Your task to perform on an android device: toggle pop-ups in chrome Image 0: 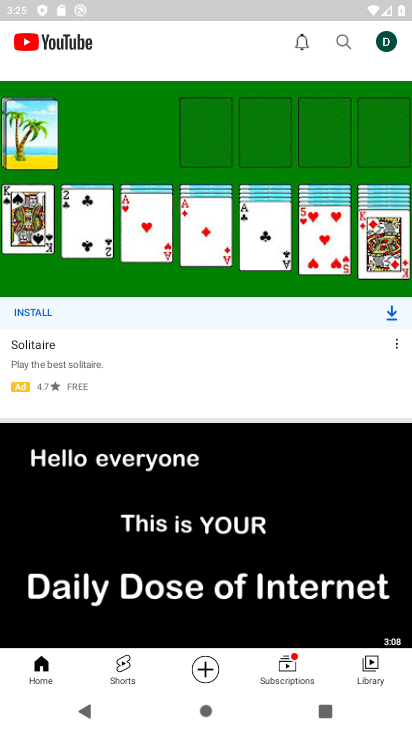
Step 0: press home button
Your task to perform on an android device: toggle pop-ups in chrome Image 1: 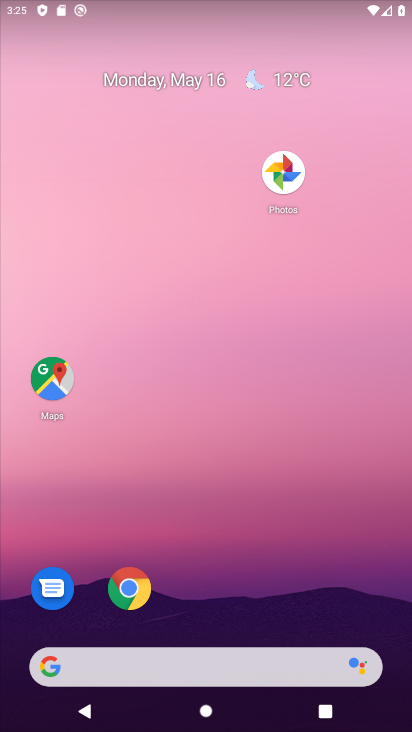
Step 1: click (136, 580)
Your task to perform on an android device: toggle pop-ups in chrome Image 2: 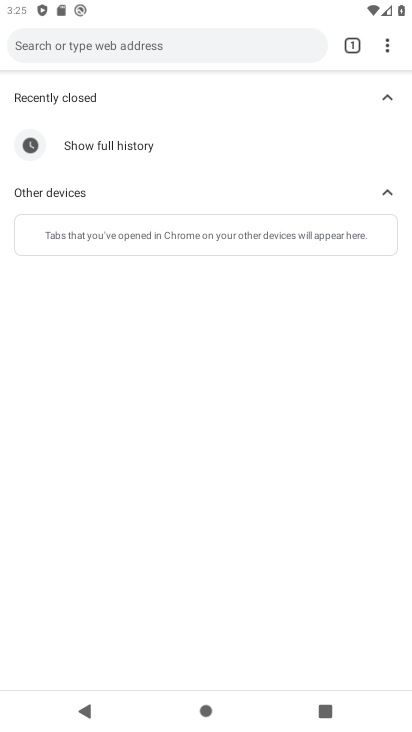
Step 2: click (397, 38)
Your task to perform on an android device: toggle pop-ups in chrome Image 3: 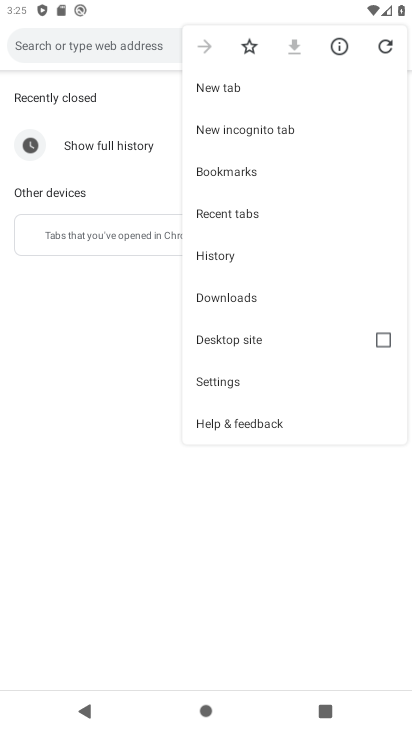
Step 3: click (222, 385)
Your task to perform on an android device: toggle pop-ups in chrome Image 4: 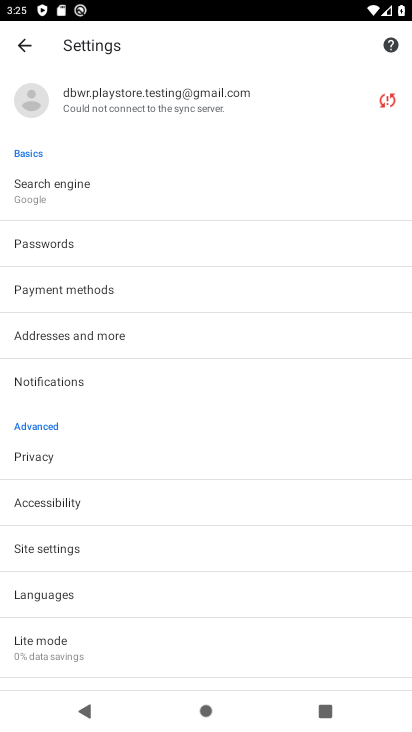
Step 4: drag from (71, 649) to (270, 130)
Your task to perform on an android device: toggle pop-ups in chrome Image 5: 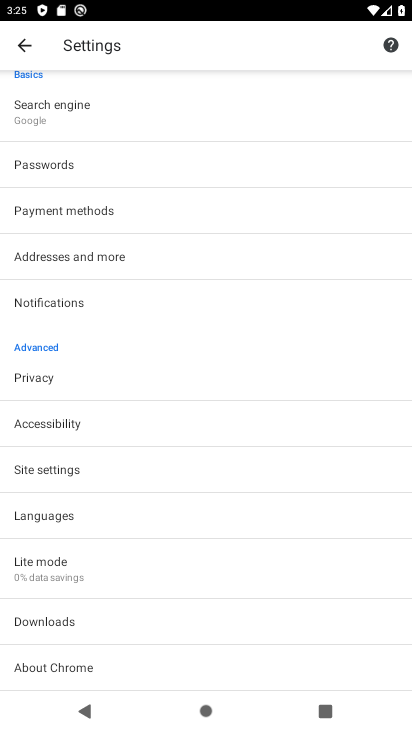
Step 5: drag from (189, 545) to (279, 88)
Your task to perform on an android device: toggle pop-ups in chrome Image 6: 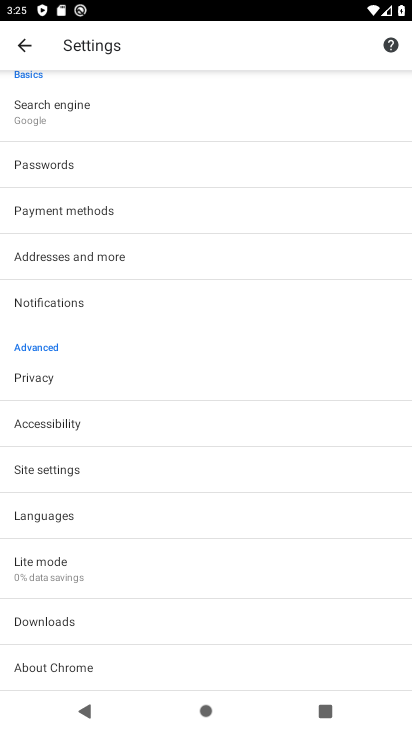
Step 6: click (99, 474)
Your task to perform on an android device: toggle pop-ups in chrome Image 7: 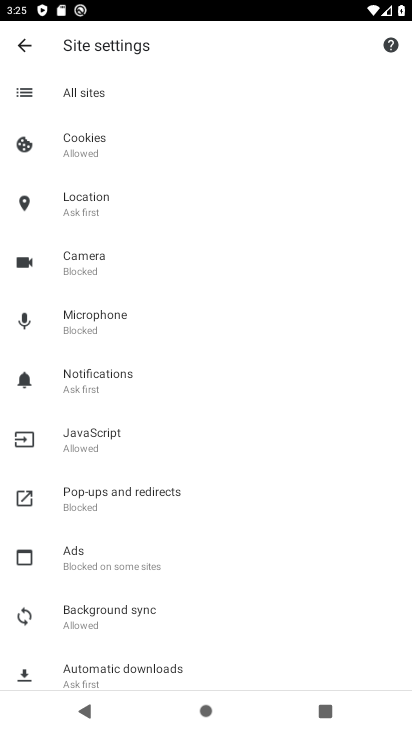
Step 7: click (163, 512)
Your task to perform on an android device: toggle pop-ups in chrome Image 8: 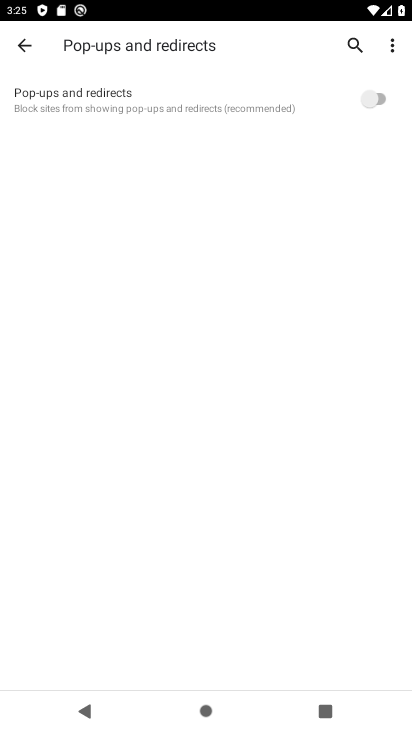
Step 8: click (379, 108)
Your task to perform on an android device: toggle pop-ups in chrome Image 9: 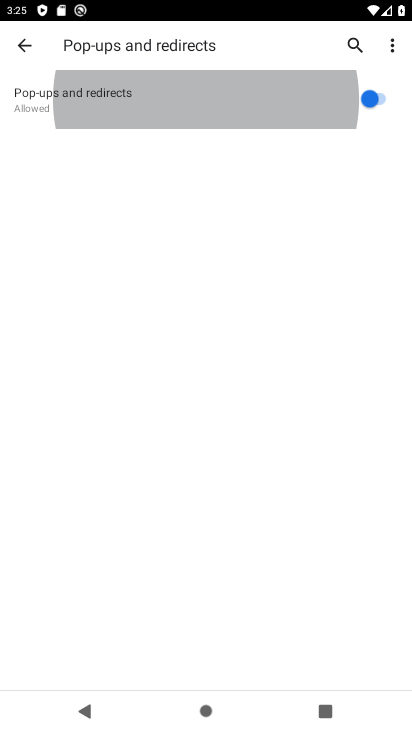
Step 9: click (379, 108)
Your task to perform on an android device: toggle pop-ups in chrome Image 10: 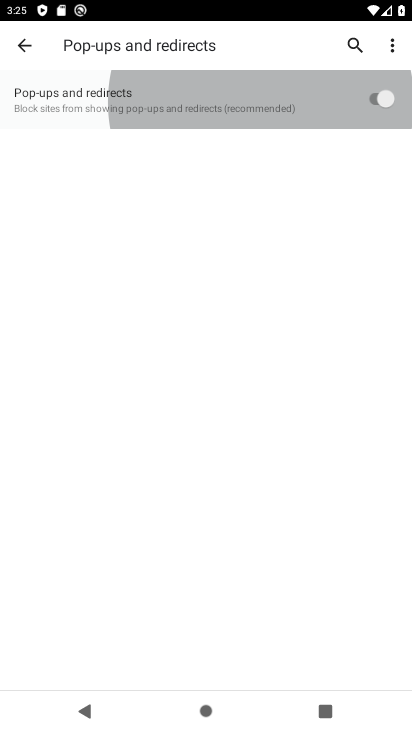
Step 10: click (379, 108)
Your task to perform on an android device: toggle pop-ups in chrome Image 11: 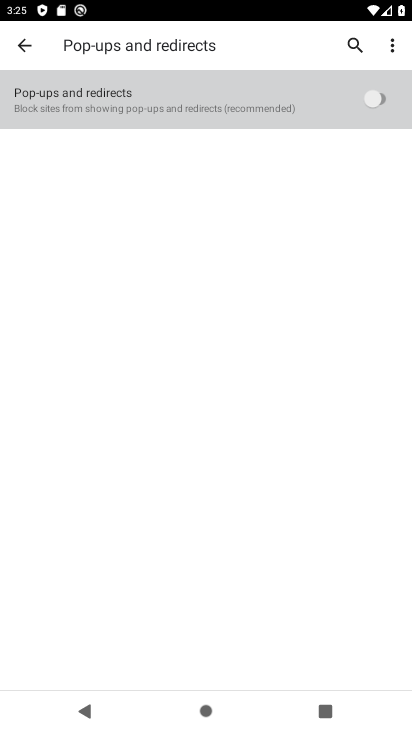
Step 11: click (379, 108)
Your task to perform on an android device: toggle pop-ups in chrome Image 12: 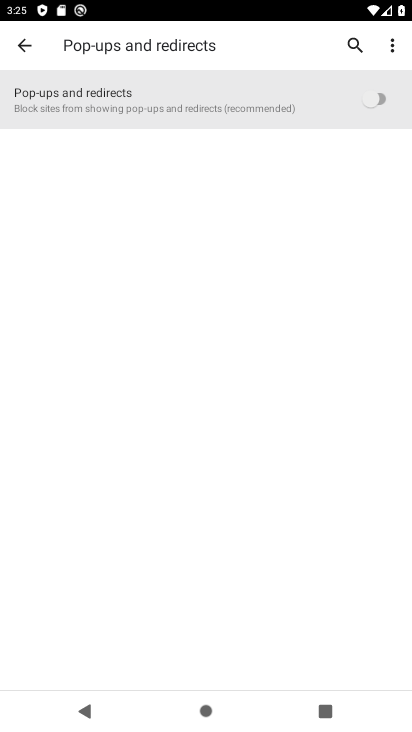
Step 12: click (379, 108)
Your task to perform on an android device: toggle pop-ups in chrome Image 13: 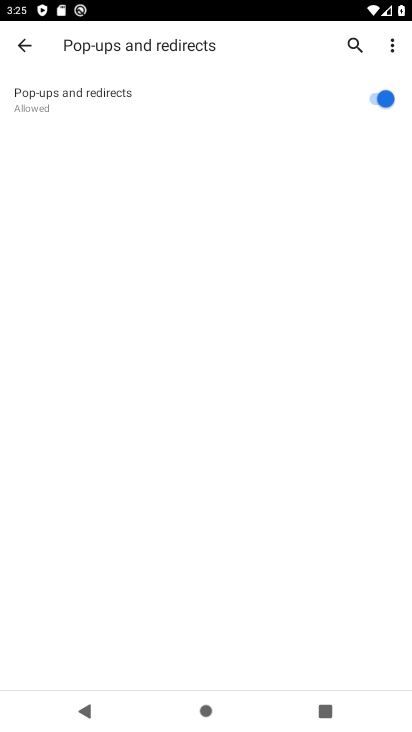
Step 13: task complete